Your task to perform on an android device: How big is a tiger? Image 0: 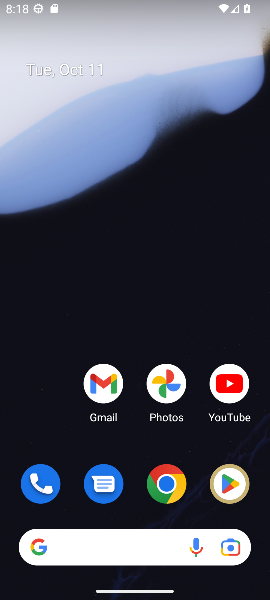
Step 0: drag from (171, 505) to (3, 201)
Your task to perform on an android device: How big is a tiger? Image 1: 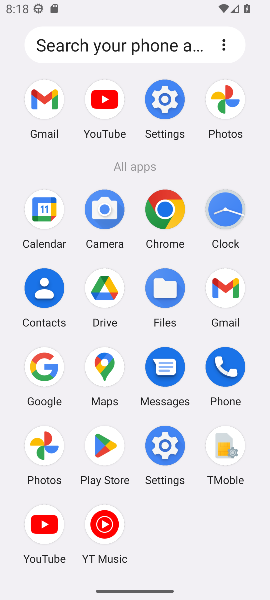
Step 1: click (163, 219)
Your task to perform on an android device: How big is a tiger? Image 2: 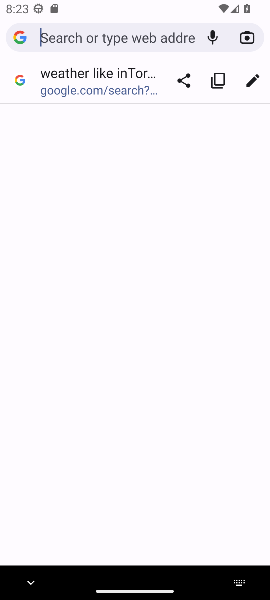
Step 2: type "How big is a tiger?"
Your task to perform on an android device: How big is a tiger? Image 3: 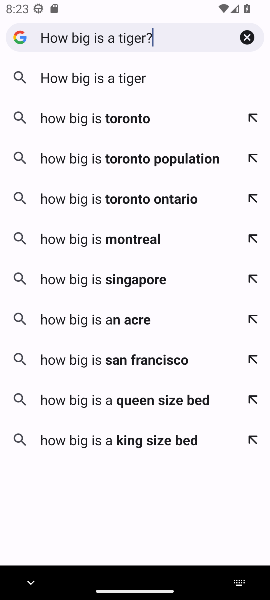
Step 3: press enter
Your task to perform on an android device: How big is a tiger? Image 4: 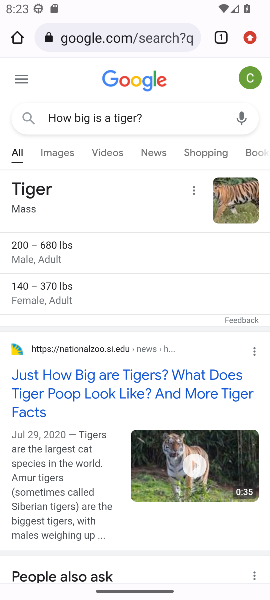
Step 4: task complete